Your task to perform on an android device: turn on sleep mode Image 0: 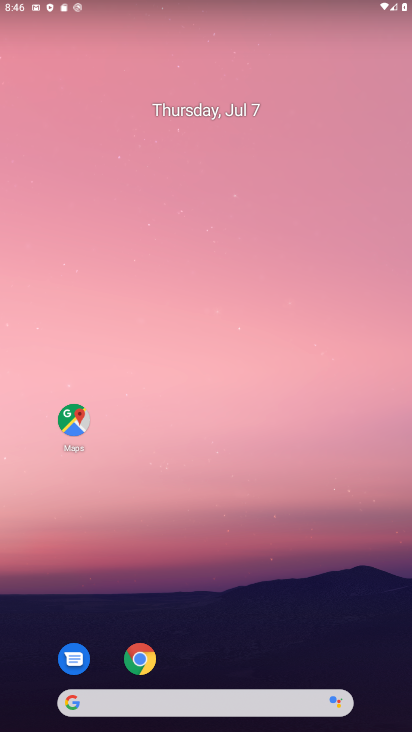
Step 0: drag from (232, 600) to (218, 1)
Your task to perform on an android device: turn on sleep mode Image 1: 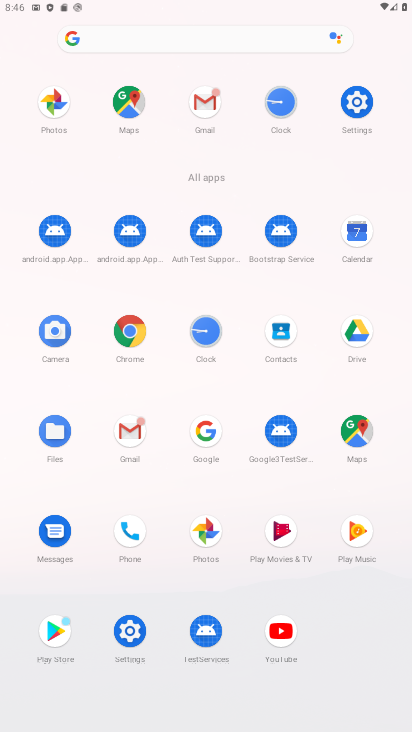
Step 1: click (355, 115)
Your task to perform on an android device: turn on sleep mode Image 2: 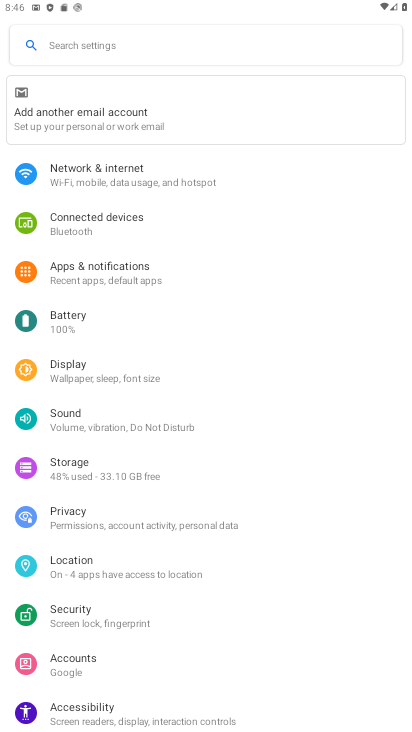
Step 2: click (235, 51)
Your task to perform on an android device: turn on sleep mode Image 3: 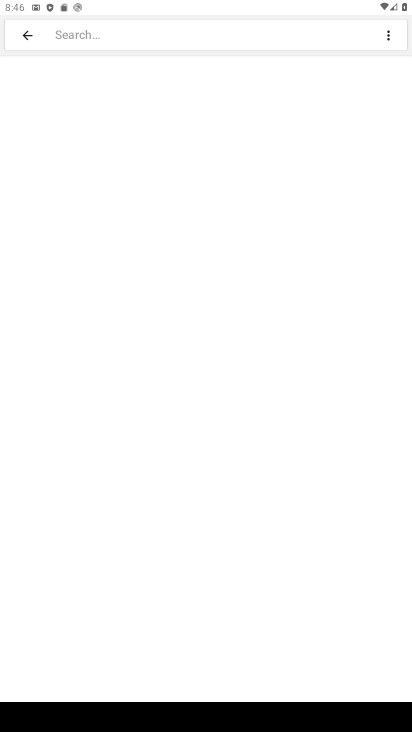
Step 3: type "sleep mode"
Your task to perform on an android device: turn on sleep mode Image 4: 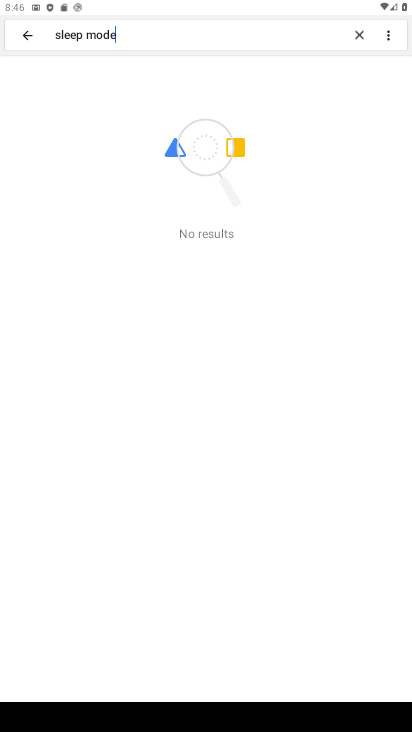
Step 4: click (202, 185)
Your task to perform on an android device: turn on sleep mode Image 5: 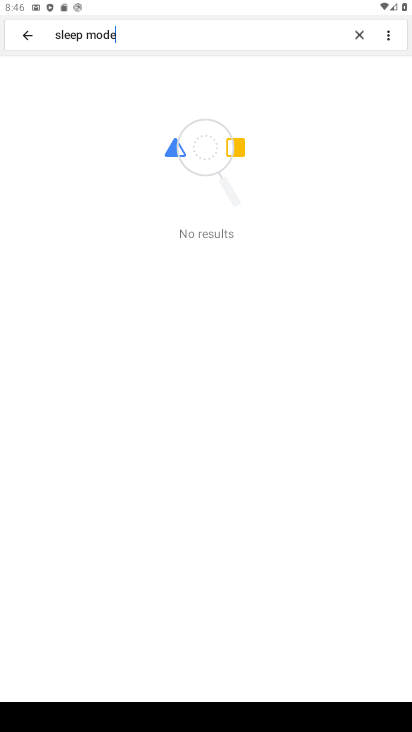
Step 5: task complete